Your task to perform on an android device: install app "NewsBreak: Local News & Alerts" Image 0: 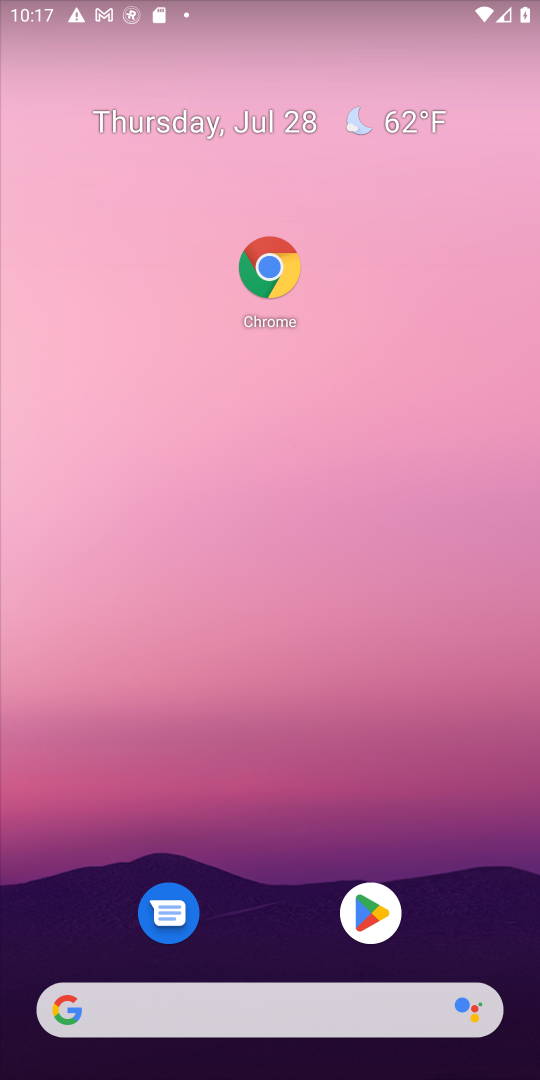
Step 0: click (366, 899)
Your task to perform on an android device: install app "NewsBreak: Local News & Alerts" Image 1: 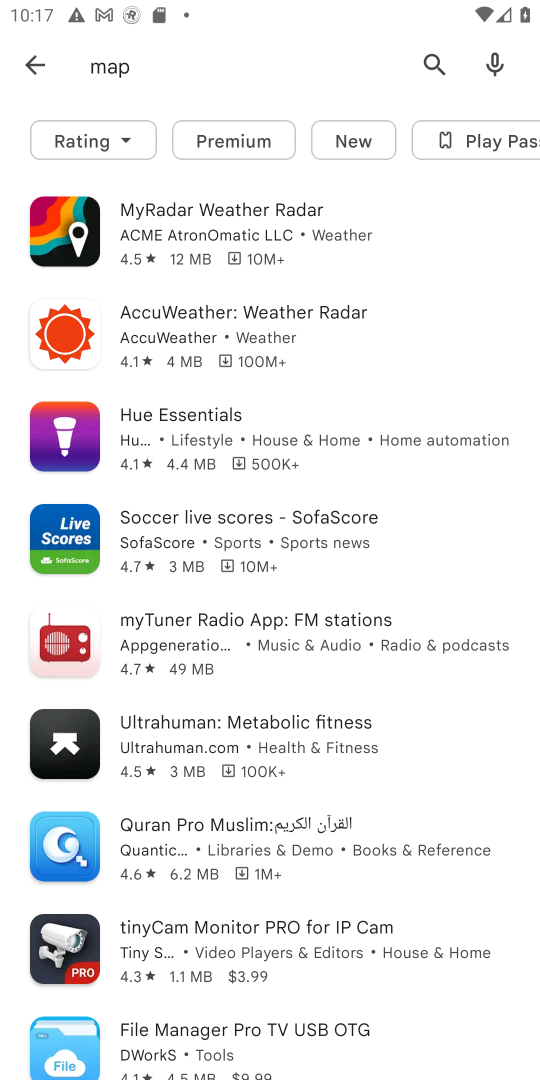
Step 1: click (425, 61)
Your task to perform on an android device: install app "NewsBreak: Local News & Alerts" Image 2: 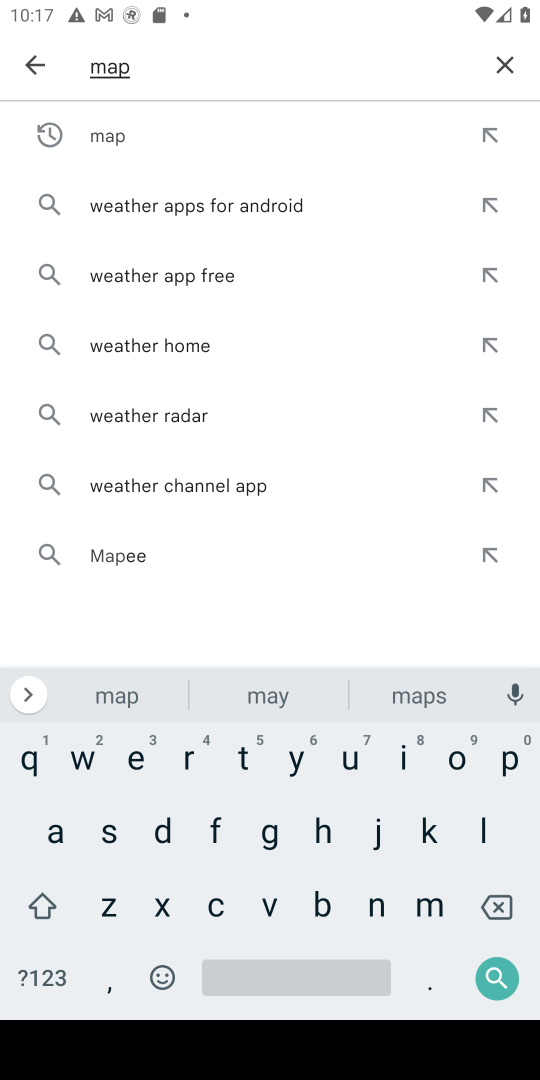
Step 2: click (503, 72)
Your task to perform on an android device: install app "NewsBreak: Local News & Alerts" Image 3: 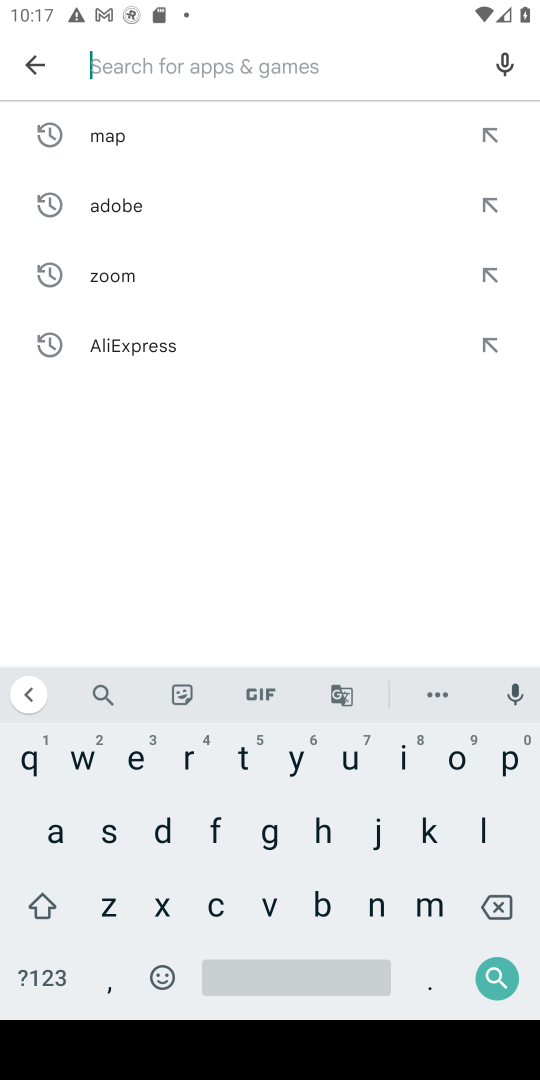
Step 3: click (372, 908)
Your task to perform on an android device: install app "NewsBreak: Local News & Alerts" Image 4: 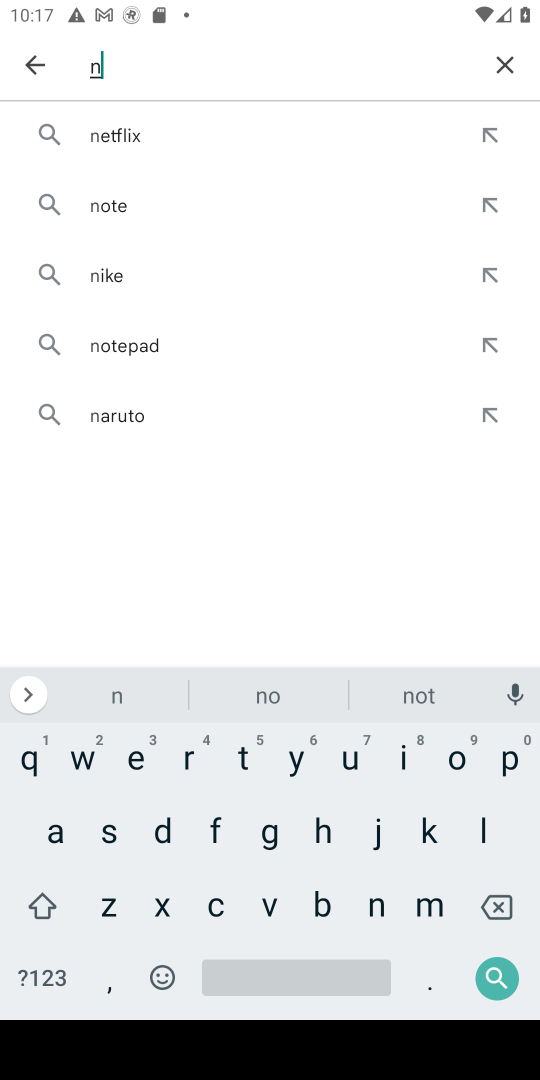
Step 4: click (134, 762)
Your task to perform on an android device: install app "NewsBreak: Local News & Alerts" Image 5: 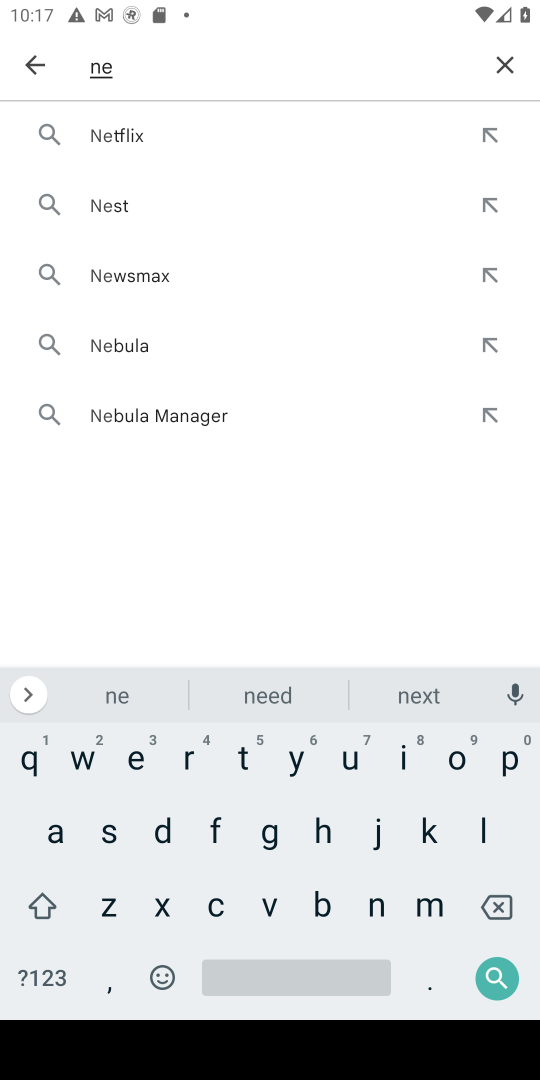
Step 5: click (78, 756)
Your task to perform on an android device: install app "NewsBreak: Local News & Alerts" Image 6: 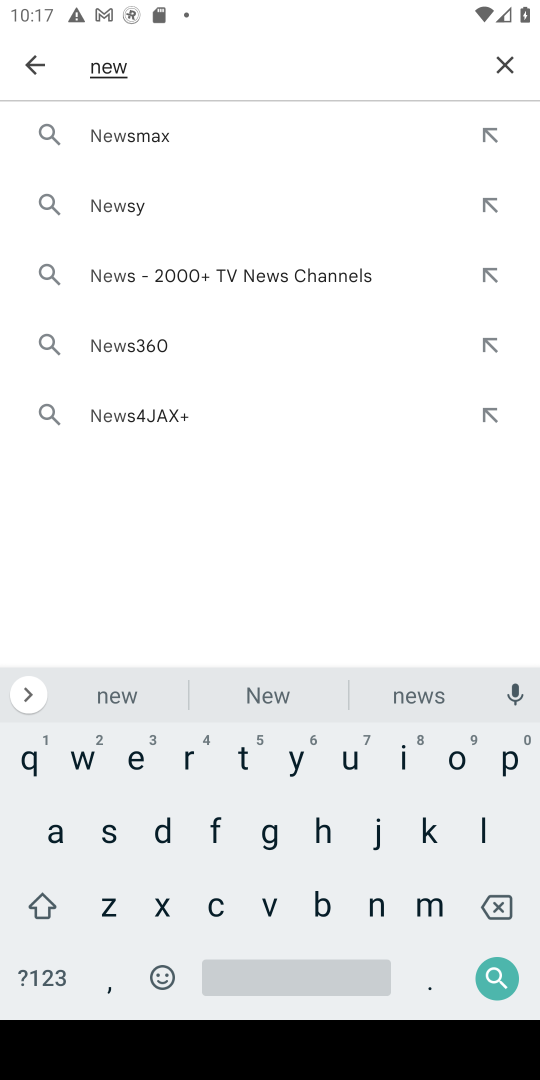
Step 6: click (106, 840)
Your task to perform on an android device: install app "NewsBreak: Local News & Alerts" Image 7: 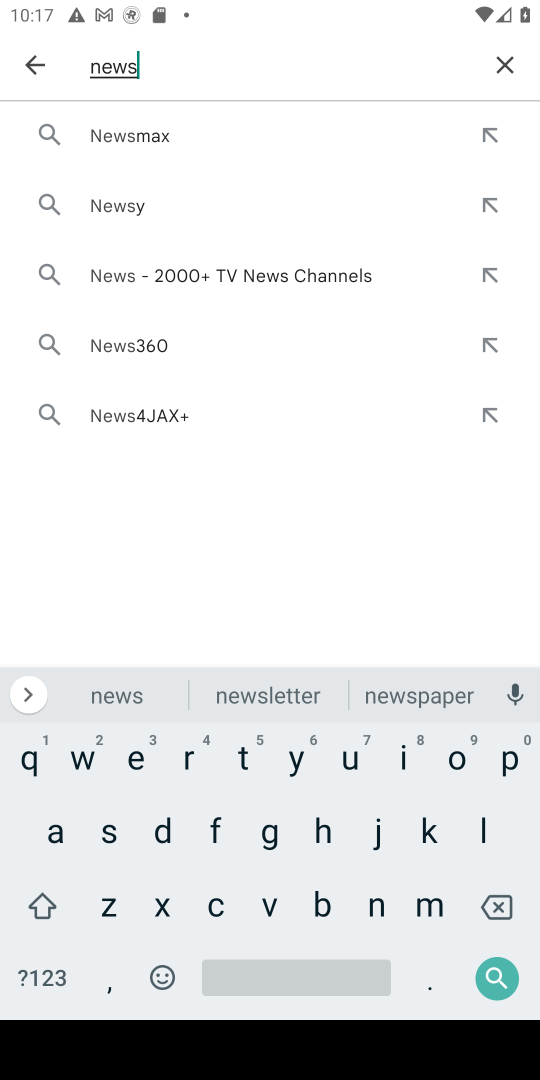
Step 7: click (318, 904)
Your task to perform on an android device: install app "NewsBreak: Local News & Alerts" Image 8: 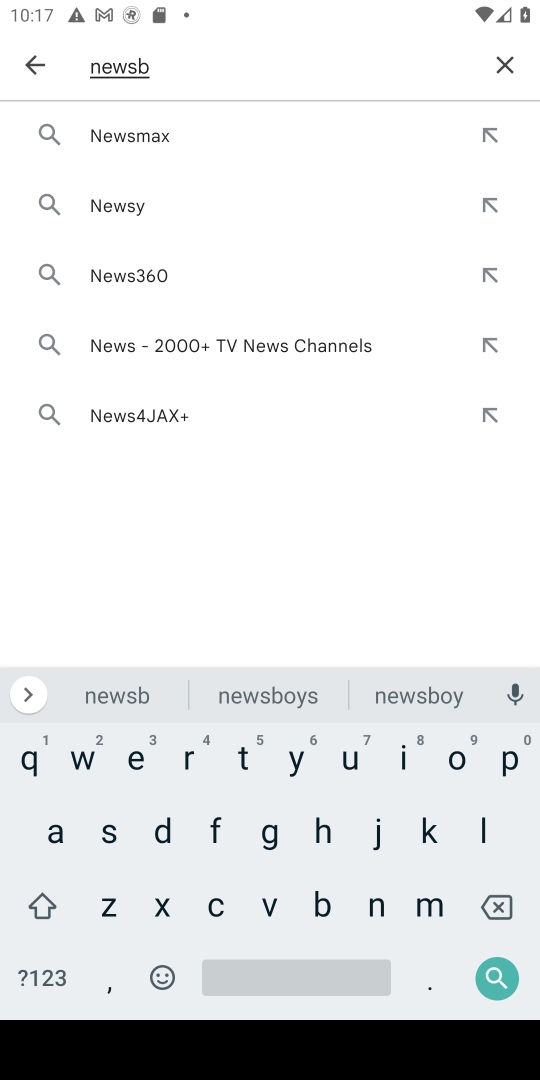
Step 8: click (187, 756)
Your task to perform on an android device: install app "NewsBreak: Local News & Alerts" Image 9: 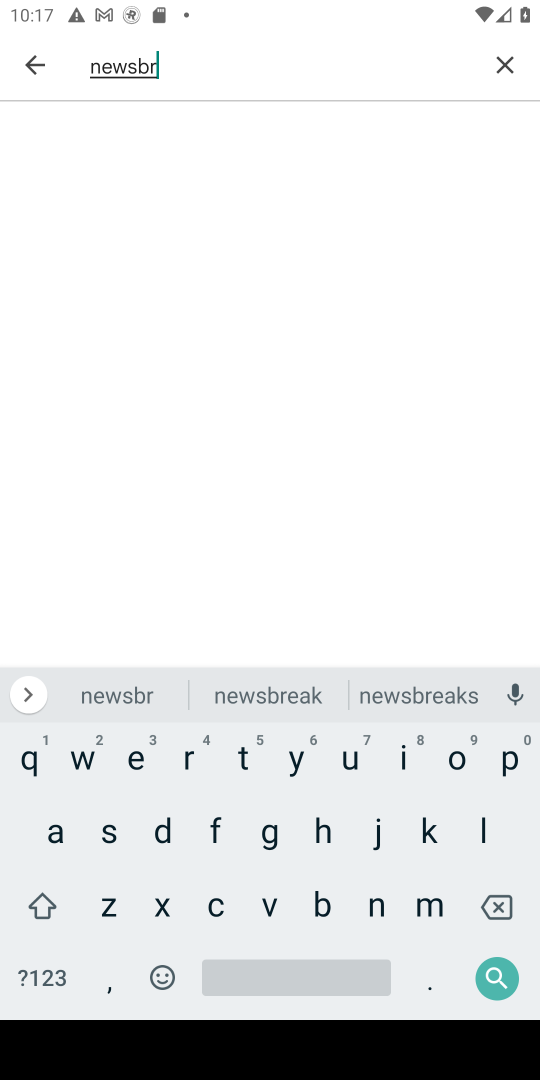
Step 9: click (138, 761)
Your task to perform on an android device: install app "NewsBreak: Local News & Alerts" Image 10: 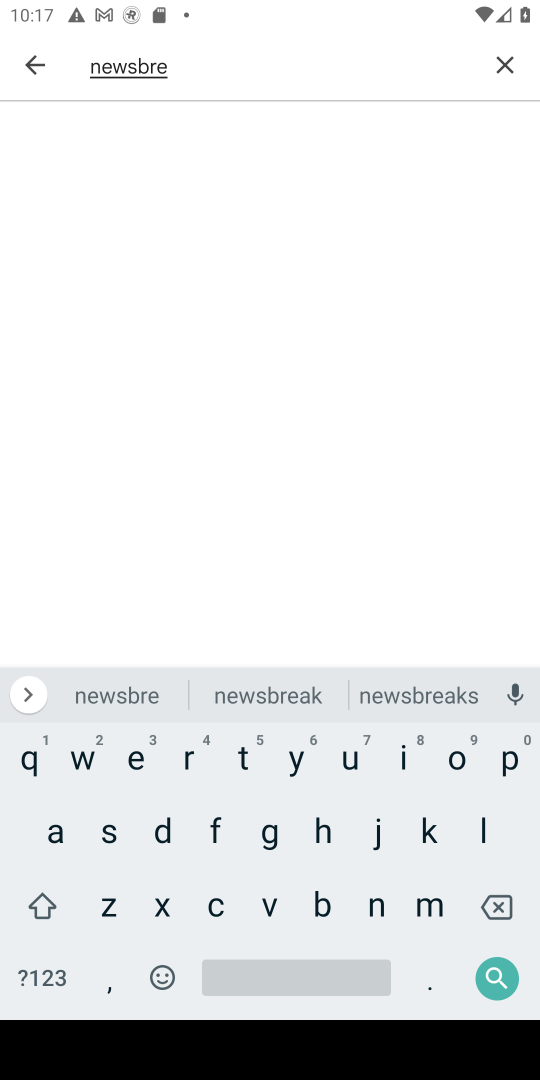
Step 10: click (234, 695)
Your task to perform on an android device: install app "NewsBreak: Local News & Alerts" Image 11: 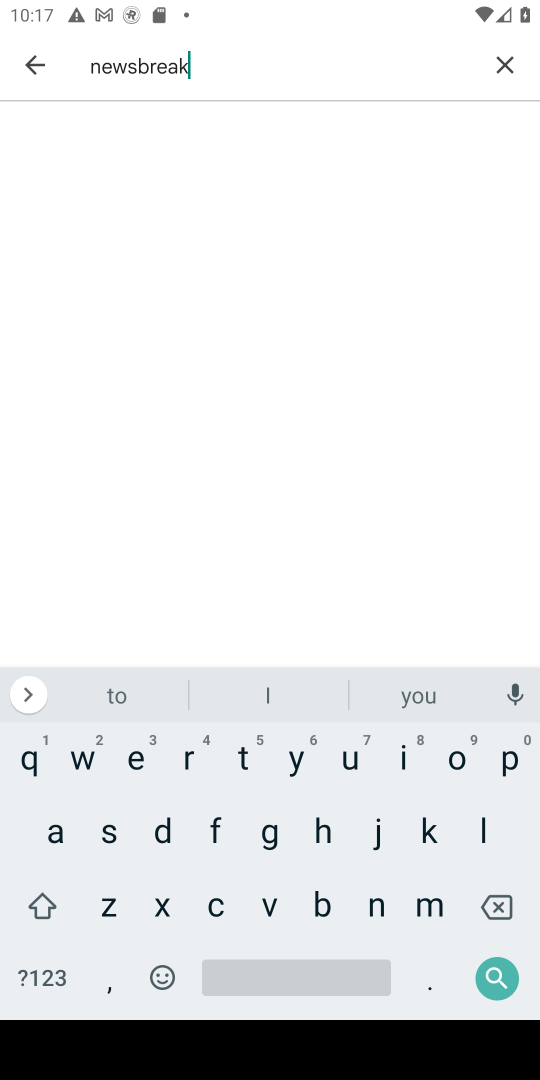
Step 11: click (492, 971)
Your task to perform on an android device: install app "NewsBreak: Local News & Alerts" Image 12: 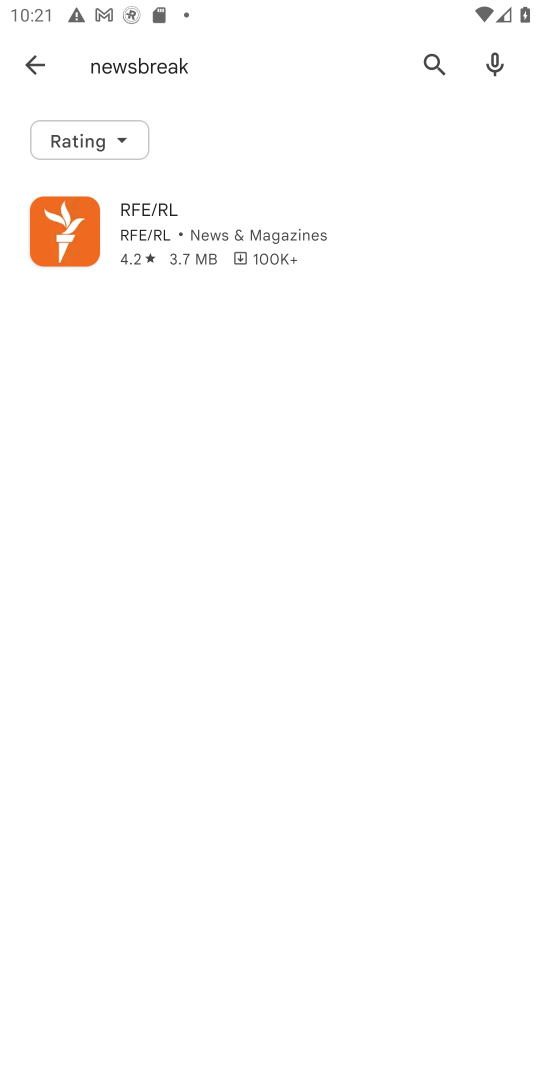
Step 12: task complete